Your task to perform on an android device: Go to battery settings Image 0: 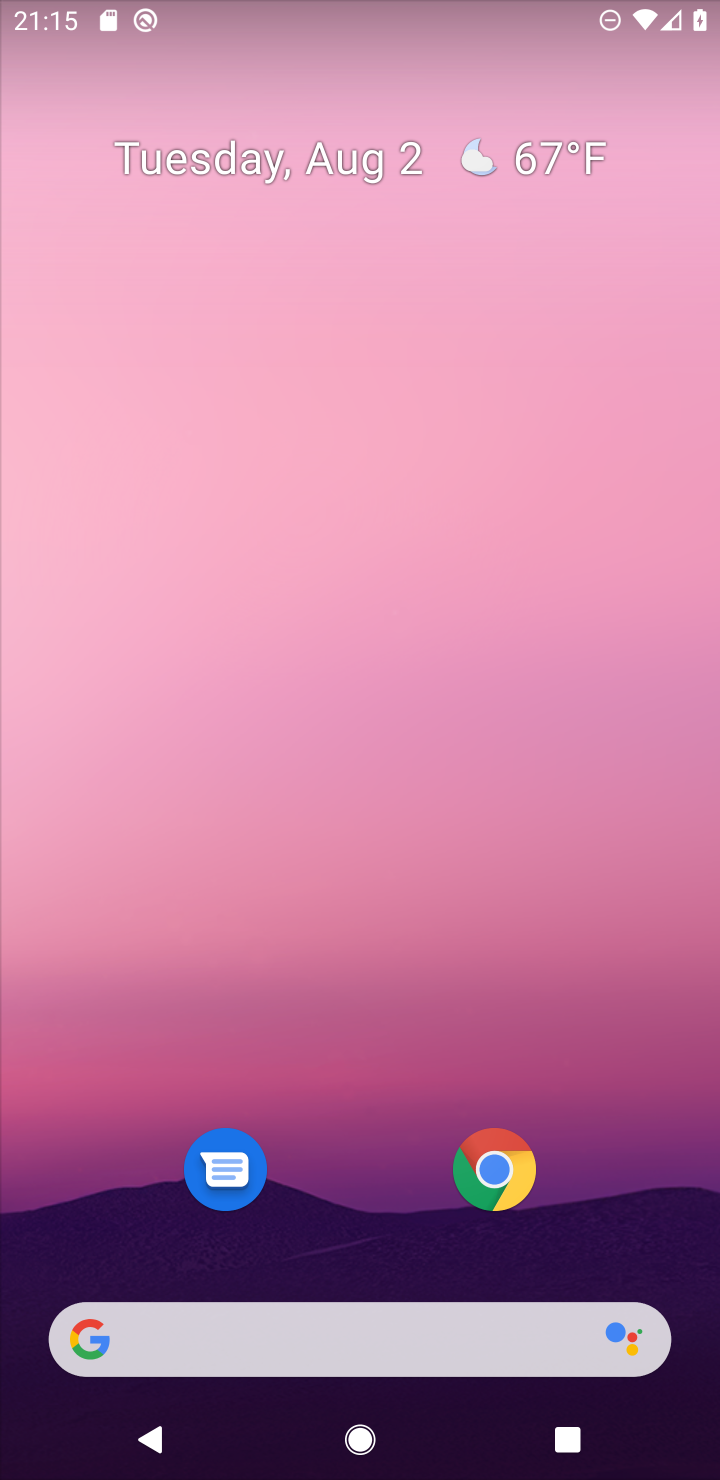
Step 0: drag from (329, 1110) to (386, 34)
Your task to perform on an android device: Go to battery settings Image 1: 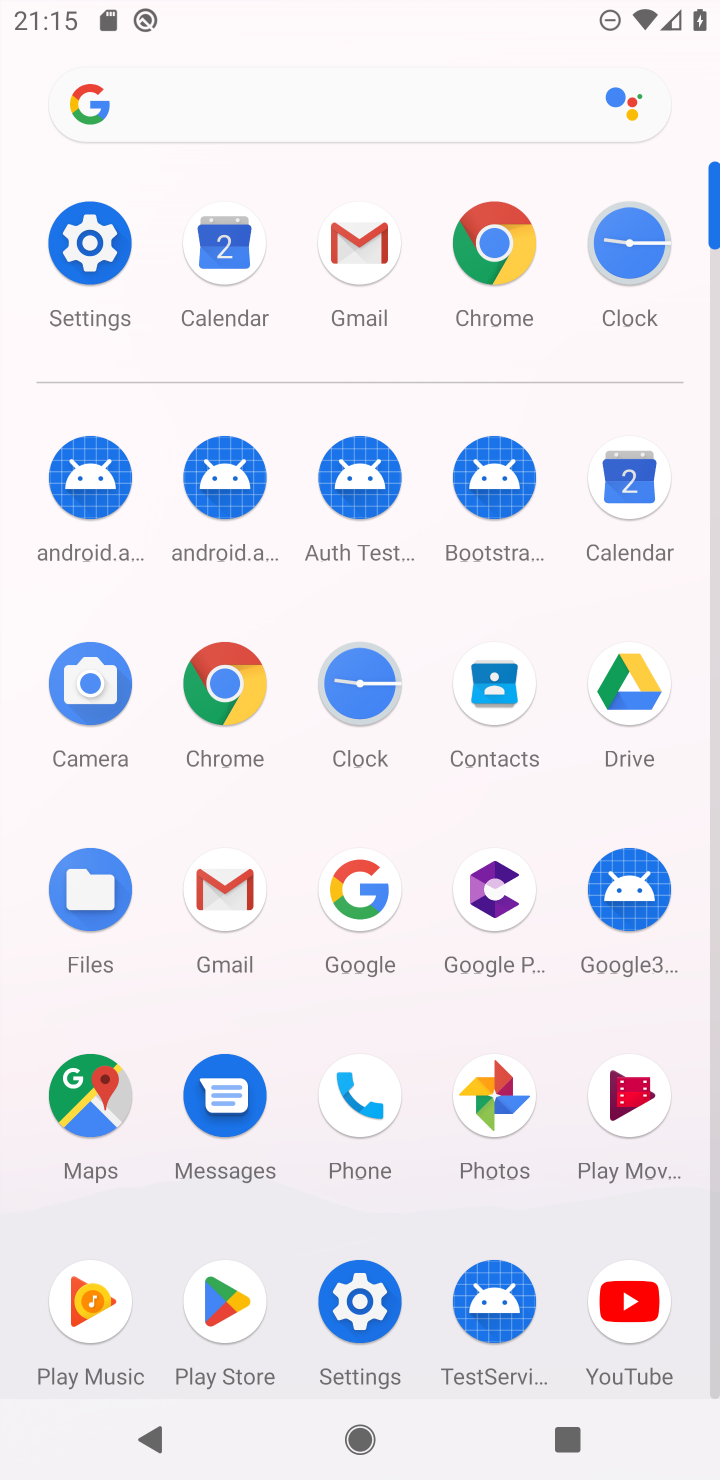
Step 1: click (89, 252)
Your task to perform on an android device: Go to battery settings Image 2: 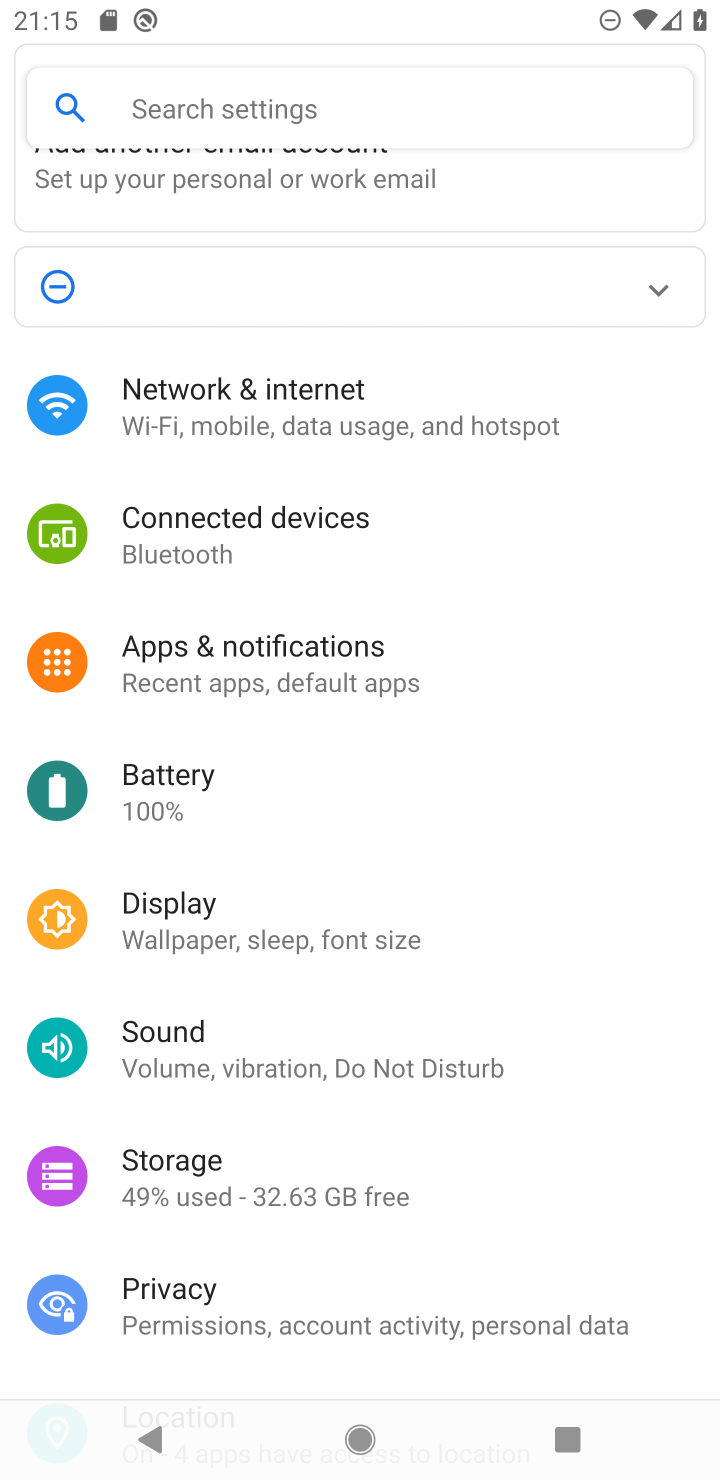
Step 2: click (161, 791)
Your task to perform on an android device: Go to battery settings Image 3: 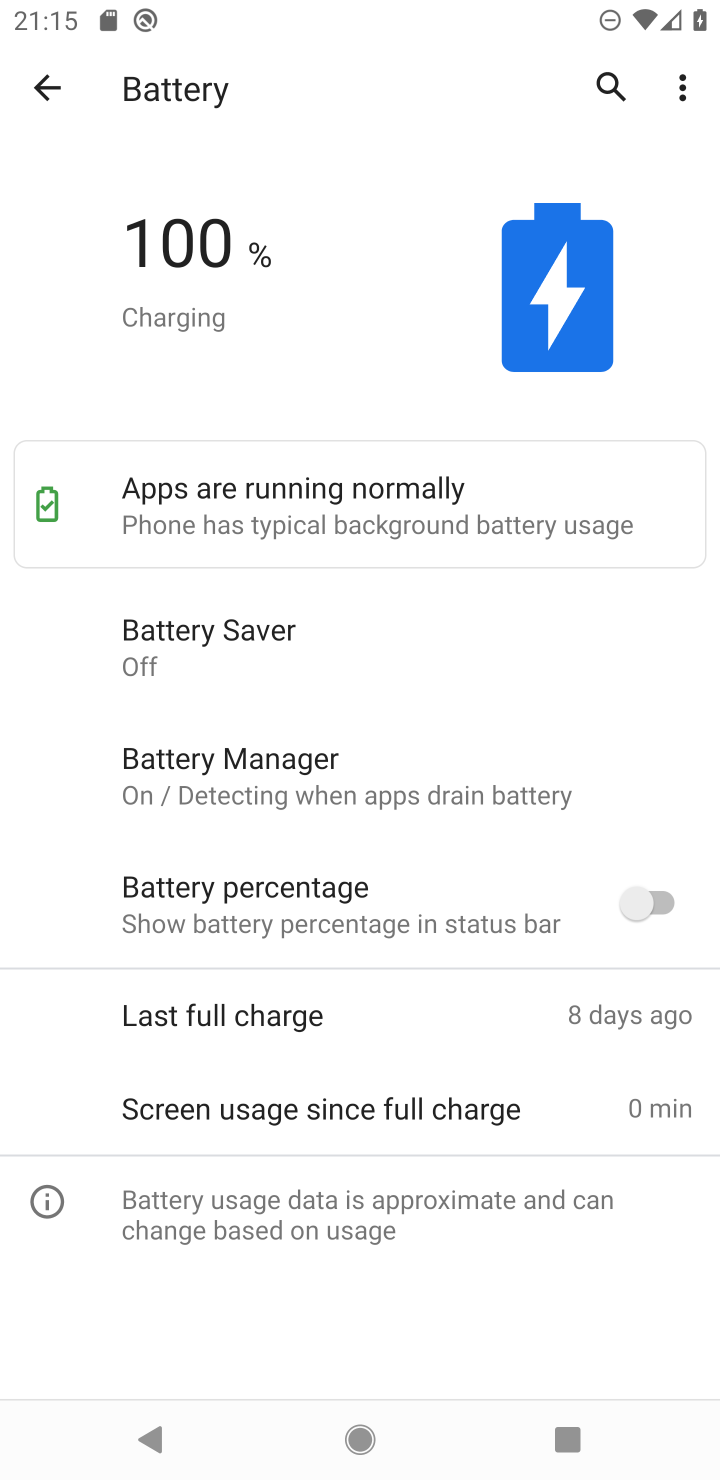
Step 3: task complete